Your task to perform on an android device: Search for flights from Chicago to London Image 0: 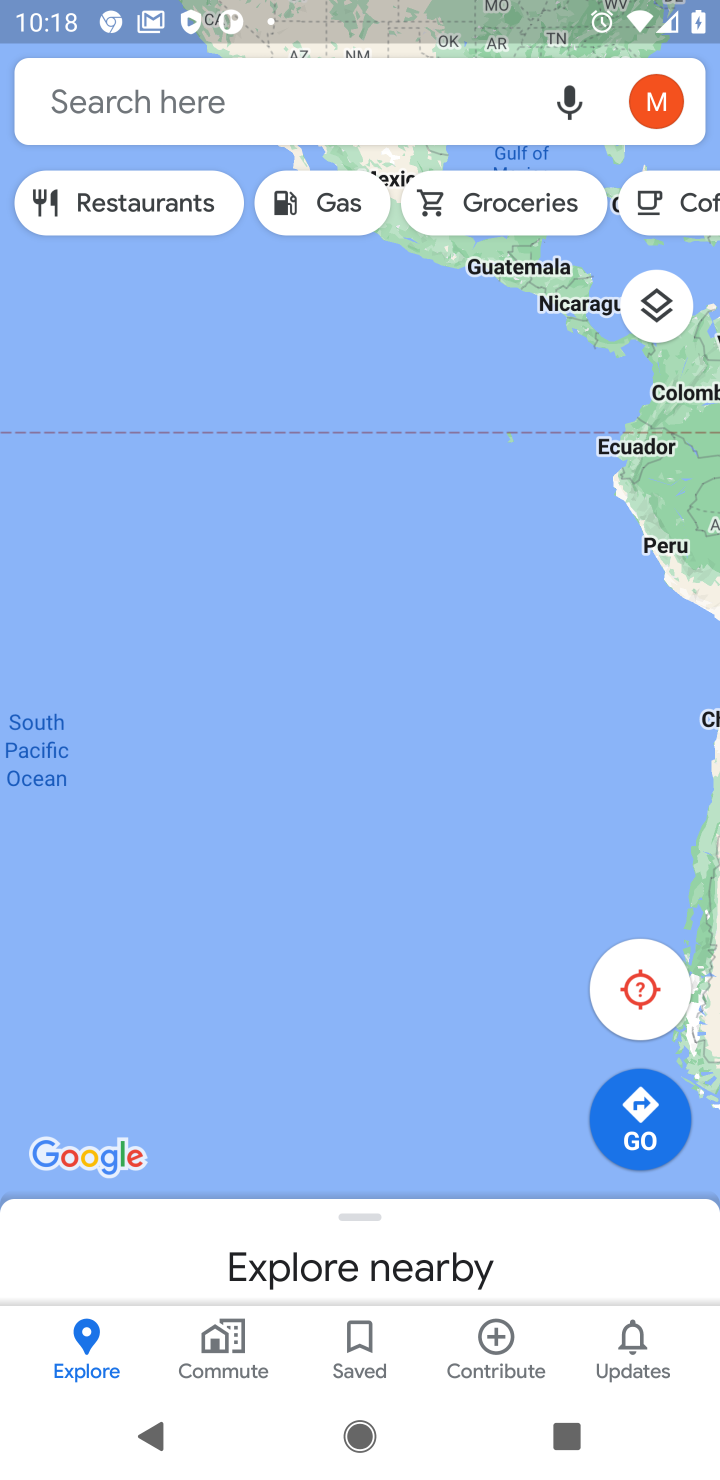
Step 0: press home button
Your task to perform on an android device: Search for flights from Chicago to London Image 1: 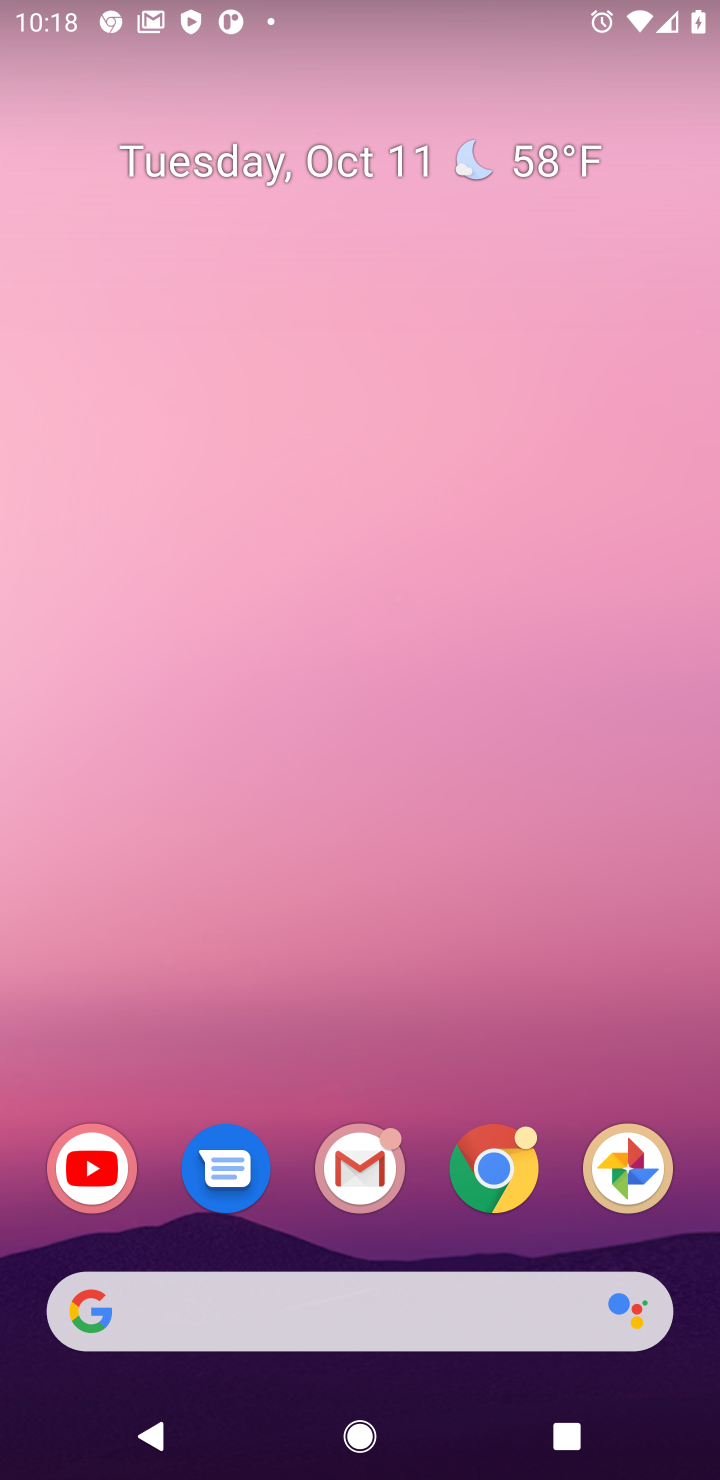
Step 1: click (489, 1154)
Your task to perform on an android device: Search for flights from Chicago to London Image 2: 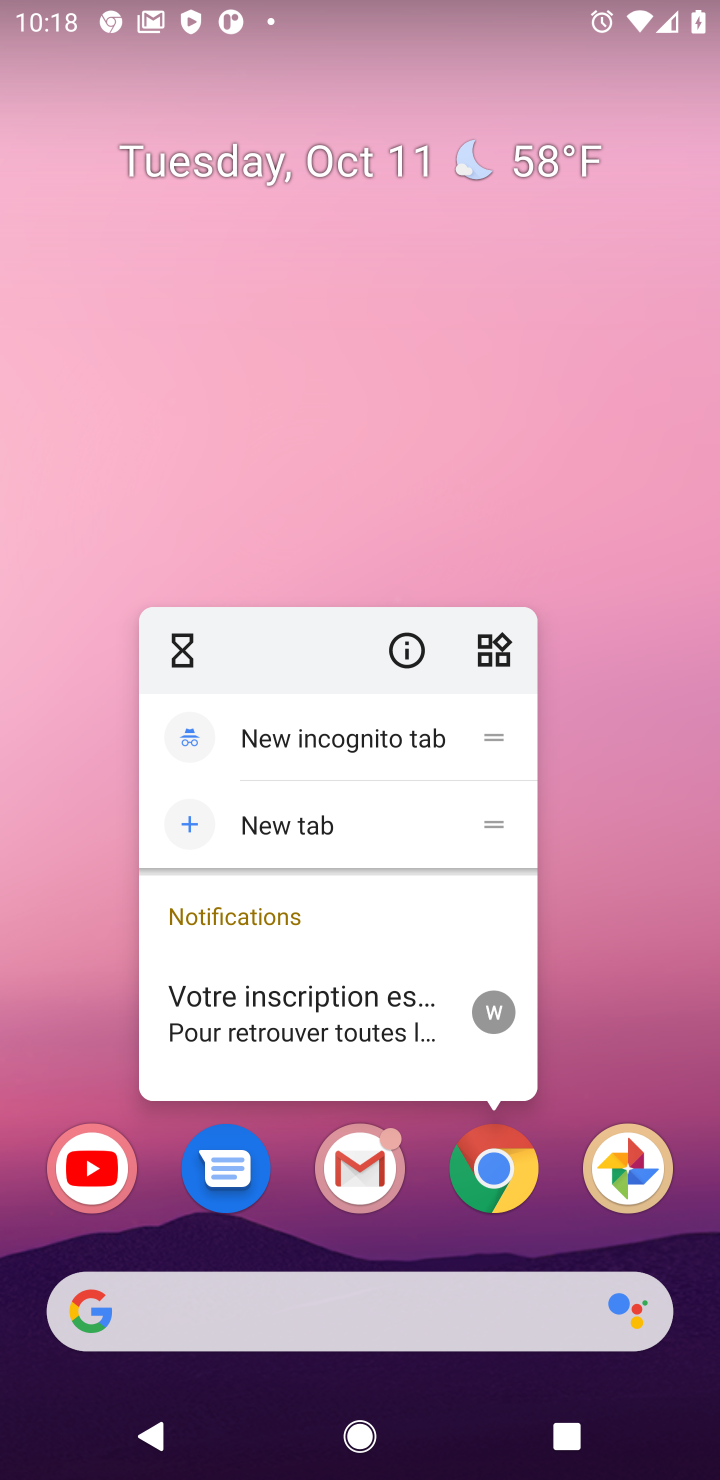
Step 2: press back button
Your task to perform on an android device: Search for flights from Chicago to London Image 3: 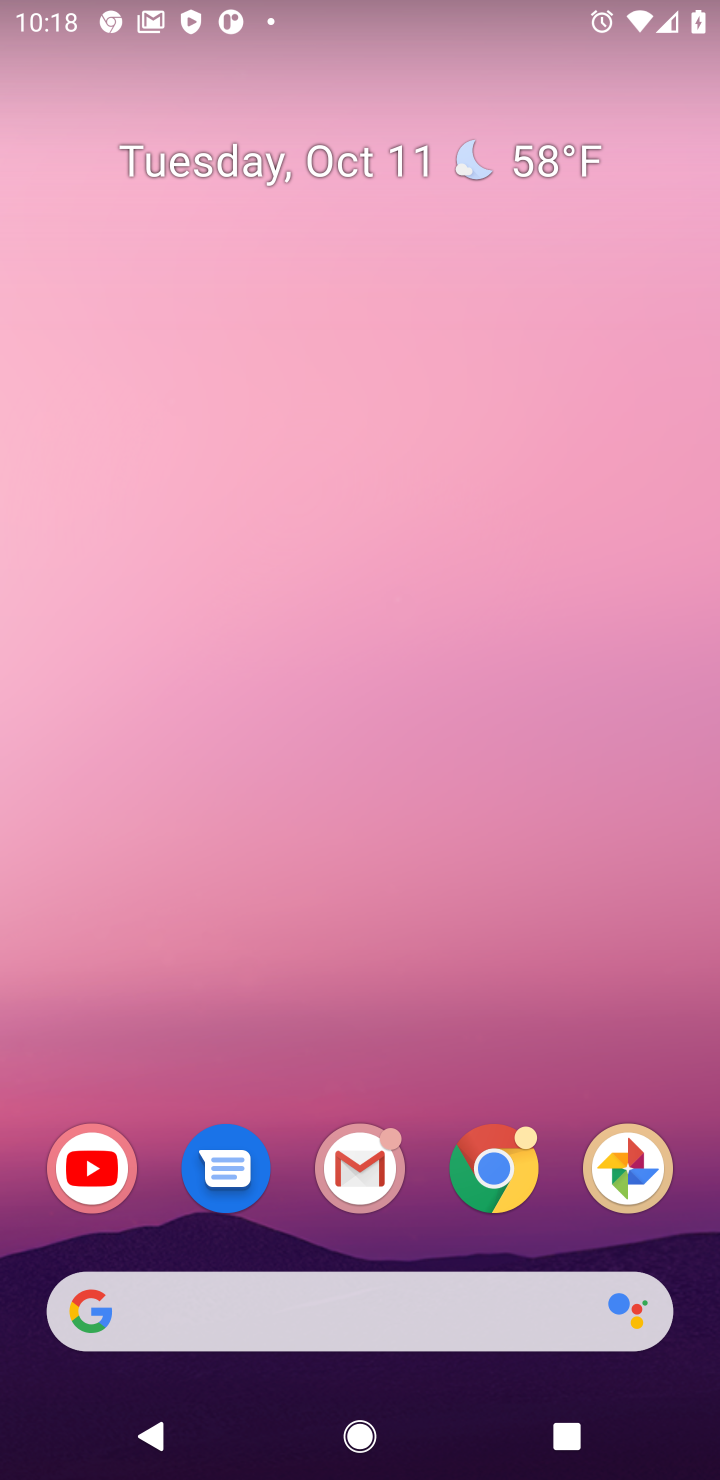
Step 3: press back button
Your task to perform on an android device: Search for flights from Chicago to London Image 4: 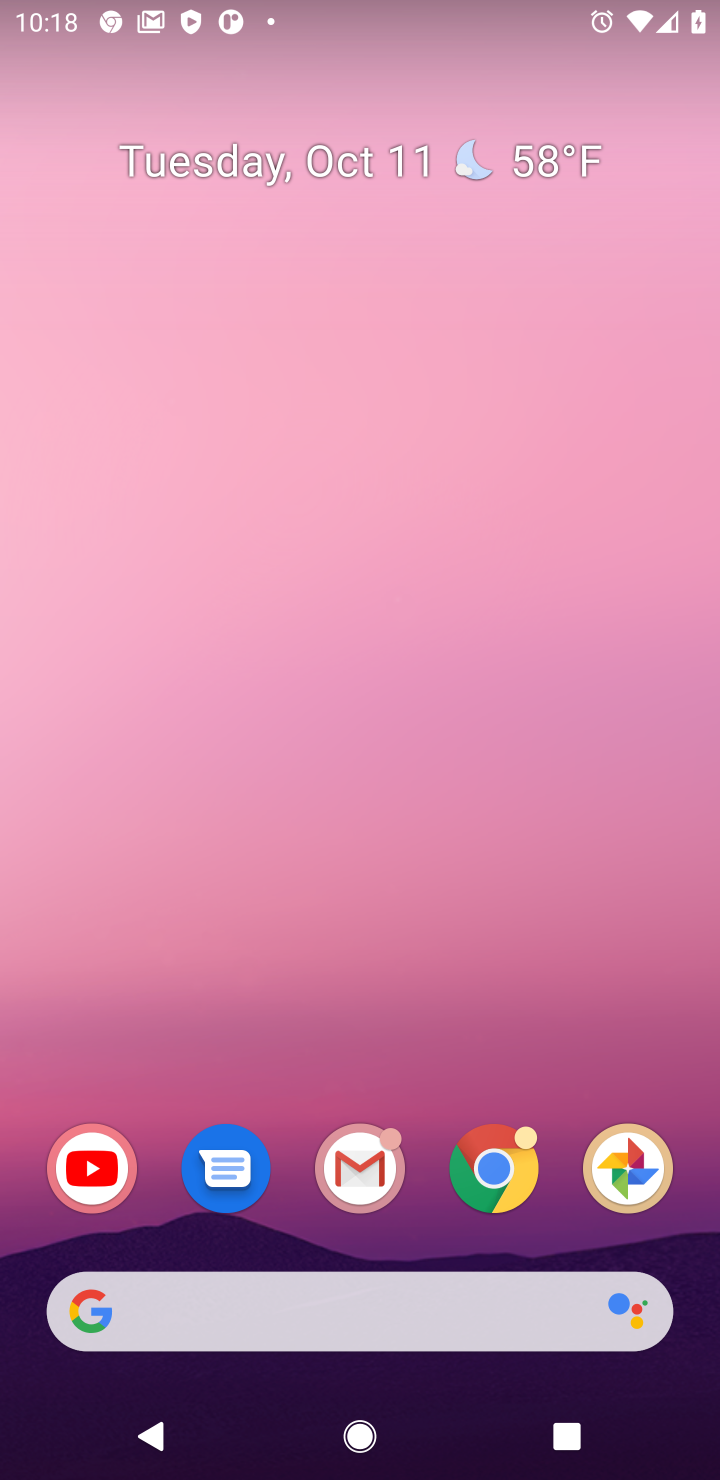
Step 4: press home button
Your task to perform on an android device: Search for flights from Chicago to London Image 5: 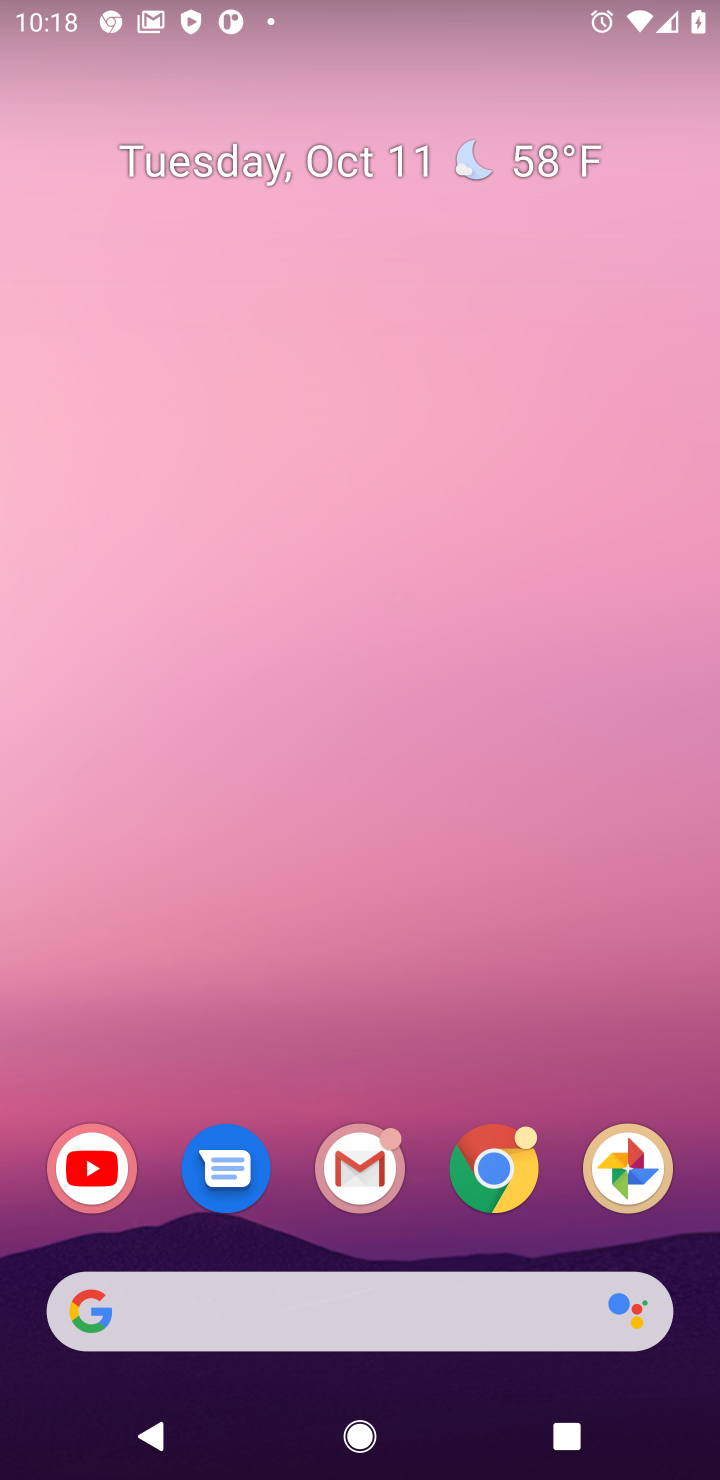
Step 5: click (494, 1170)
Your task to perform on an android device: Search for flights from Chicago to London Image 6: 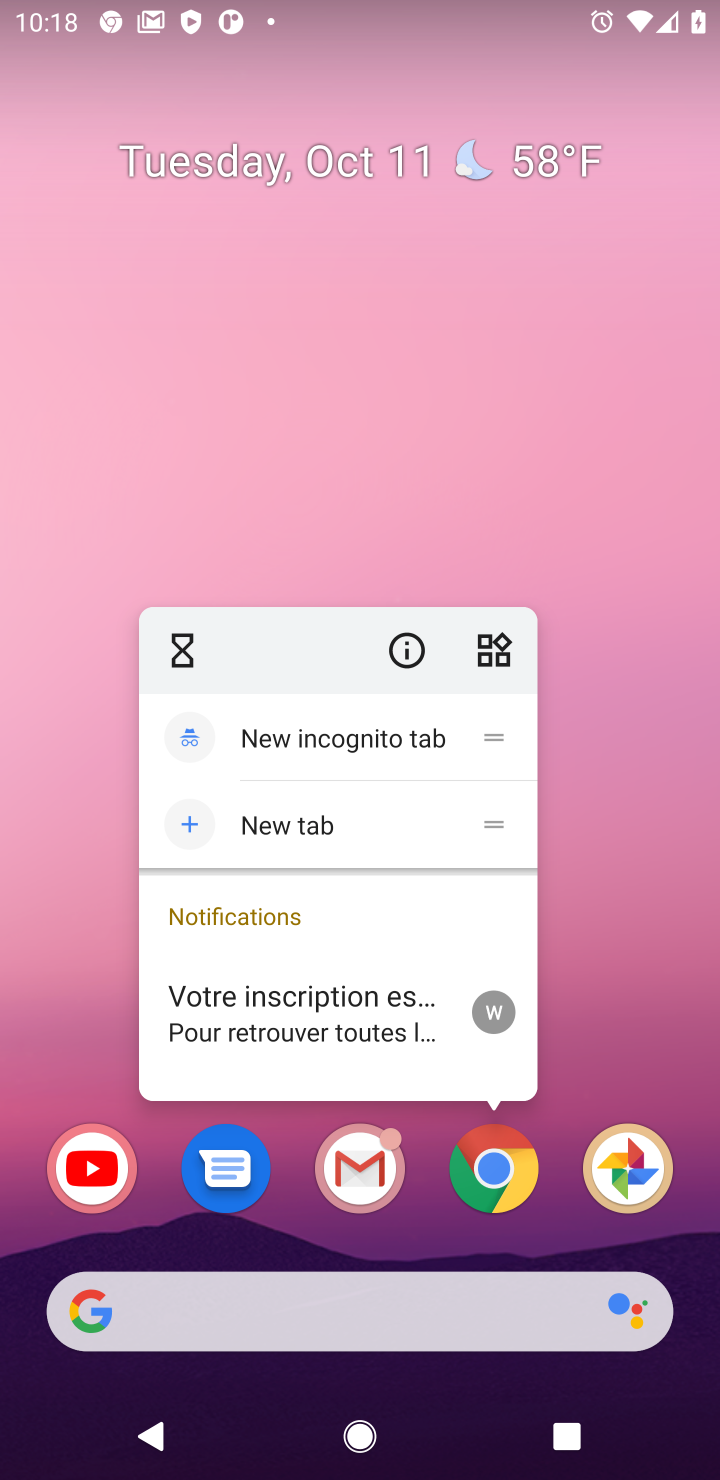
Step 6: click (489, 1161)
Your task to perform on an android device: Search for flights from Chicago to London Image 7: 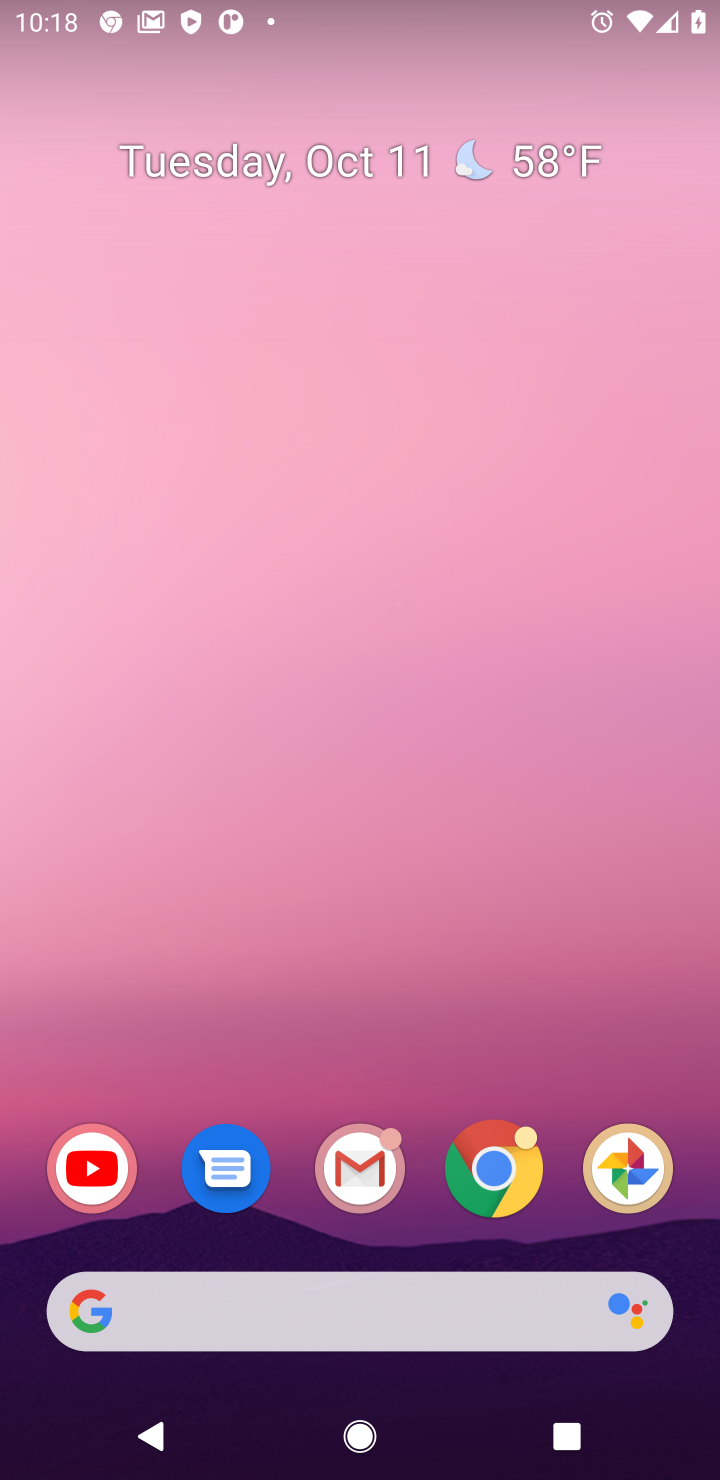
Step 7: click (510, 1179)
Your task to perform on an android device: Search for flights from Chicago to London Image 8: 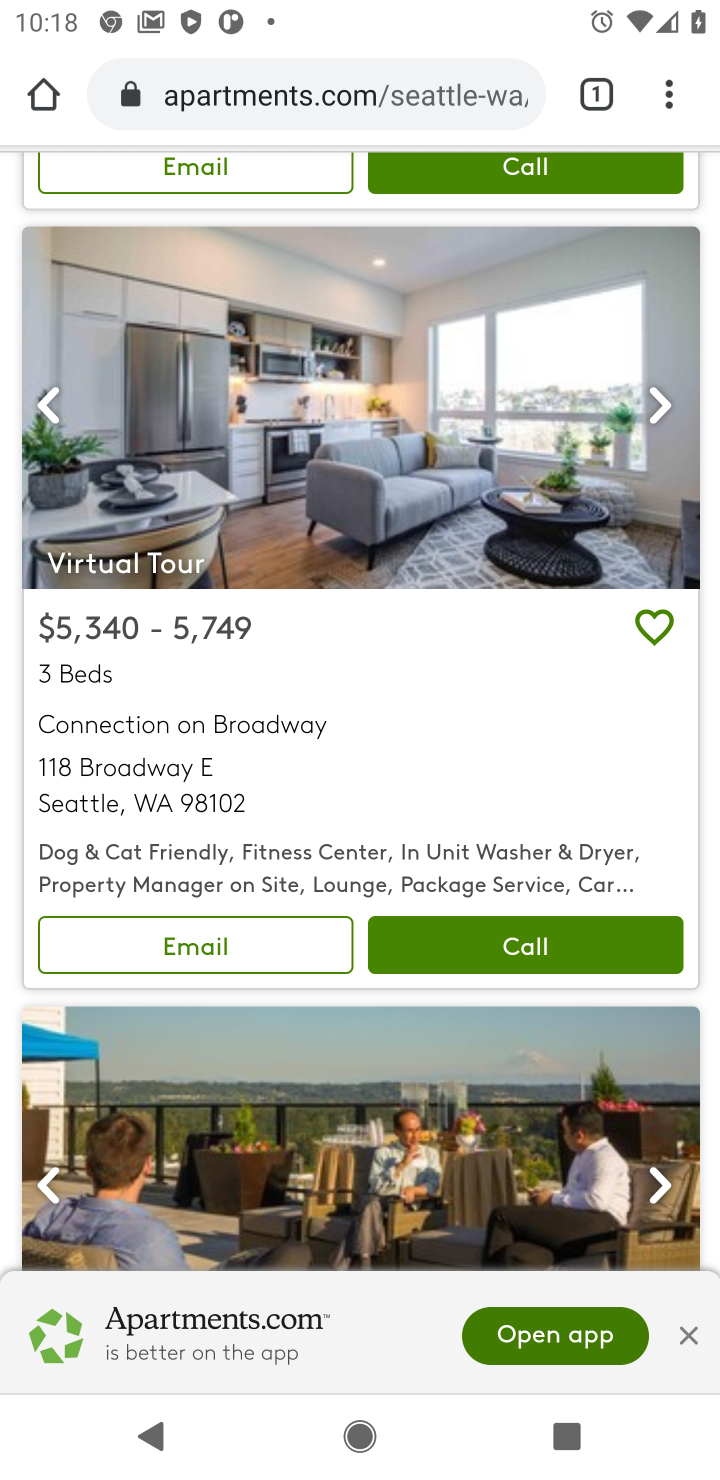
Step 8: click (416, 103)
Your task to perform on an android device: Search for flights from Chicago to London Image 9: 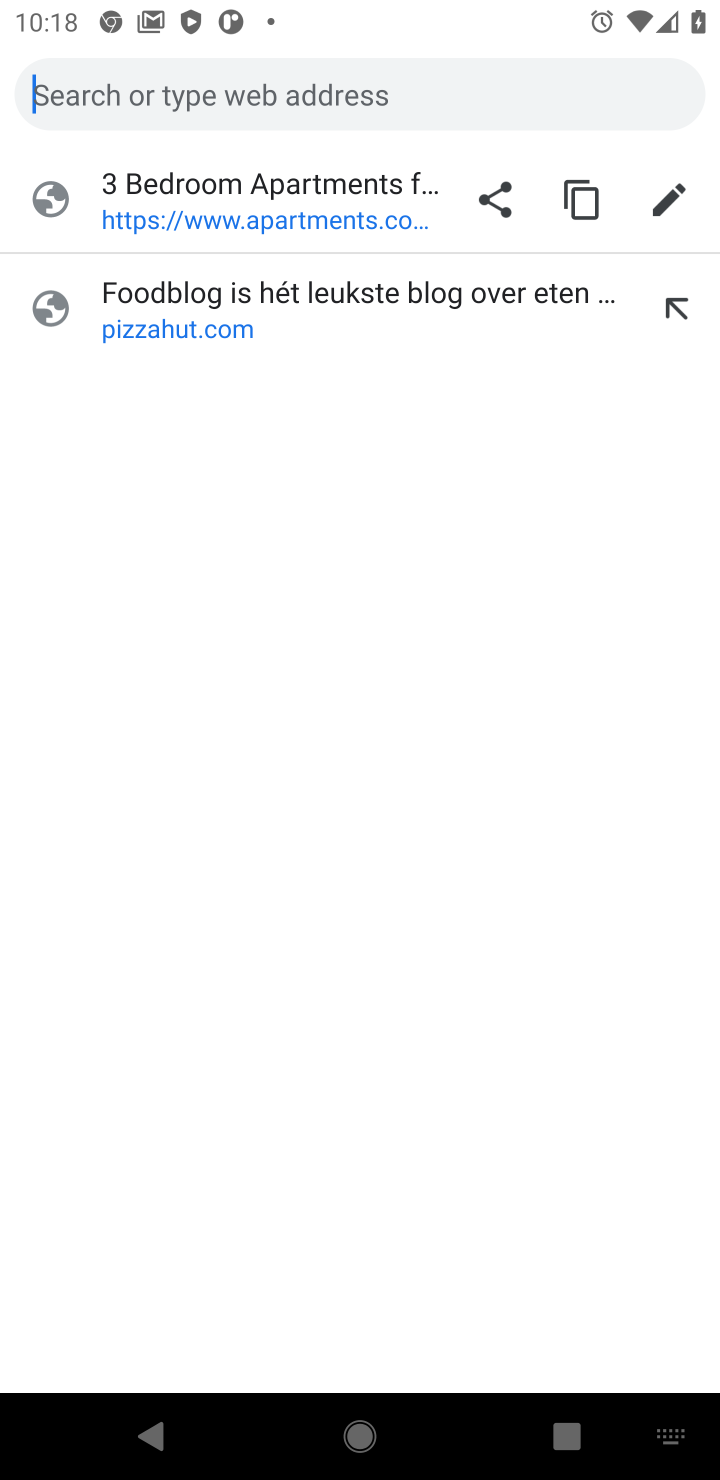
Step 9: type "flight from chicago to london"
Your task to perform on an android device: Search for flights from Chicago to London Image 10: 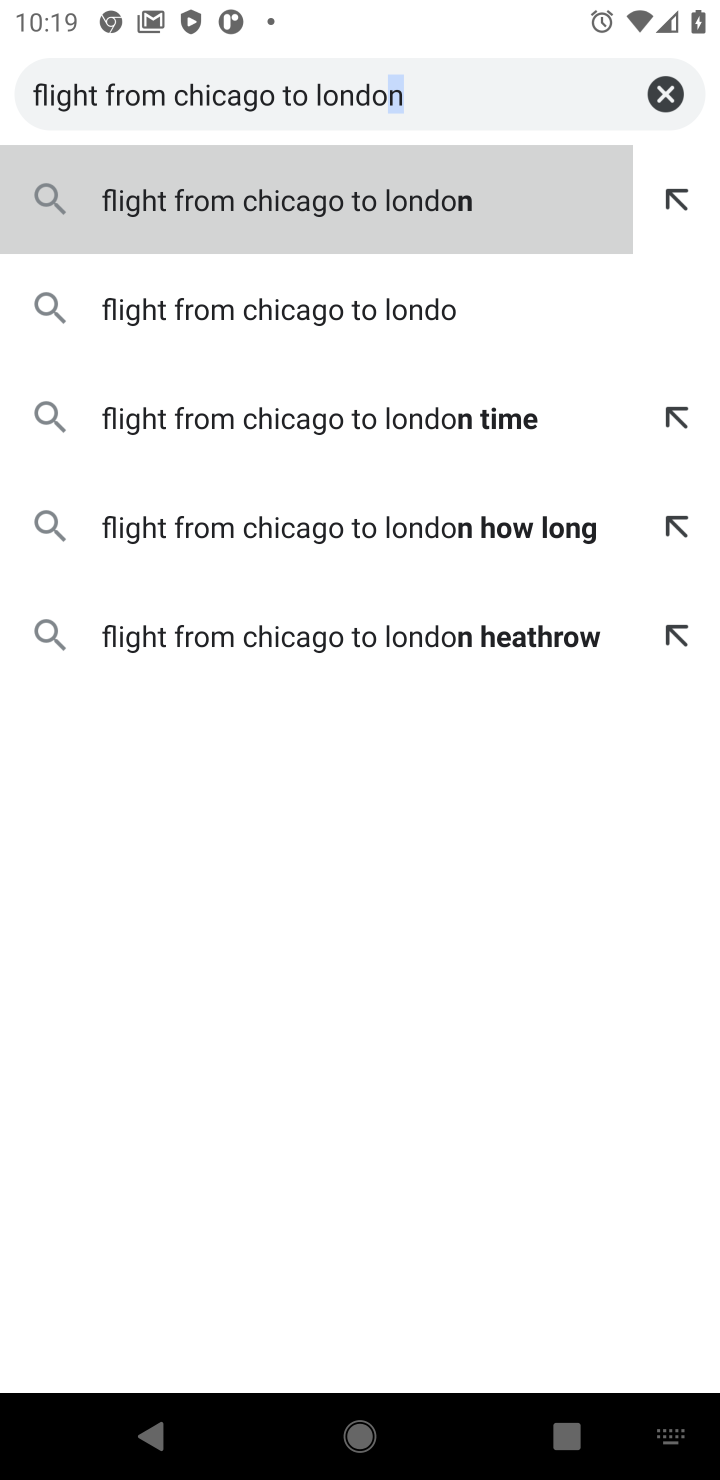
Step 10: click (376, 195)
Your task to perform on an android device: Search for flights from Chicago to London Image 11: 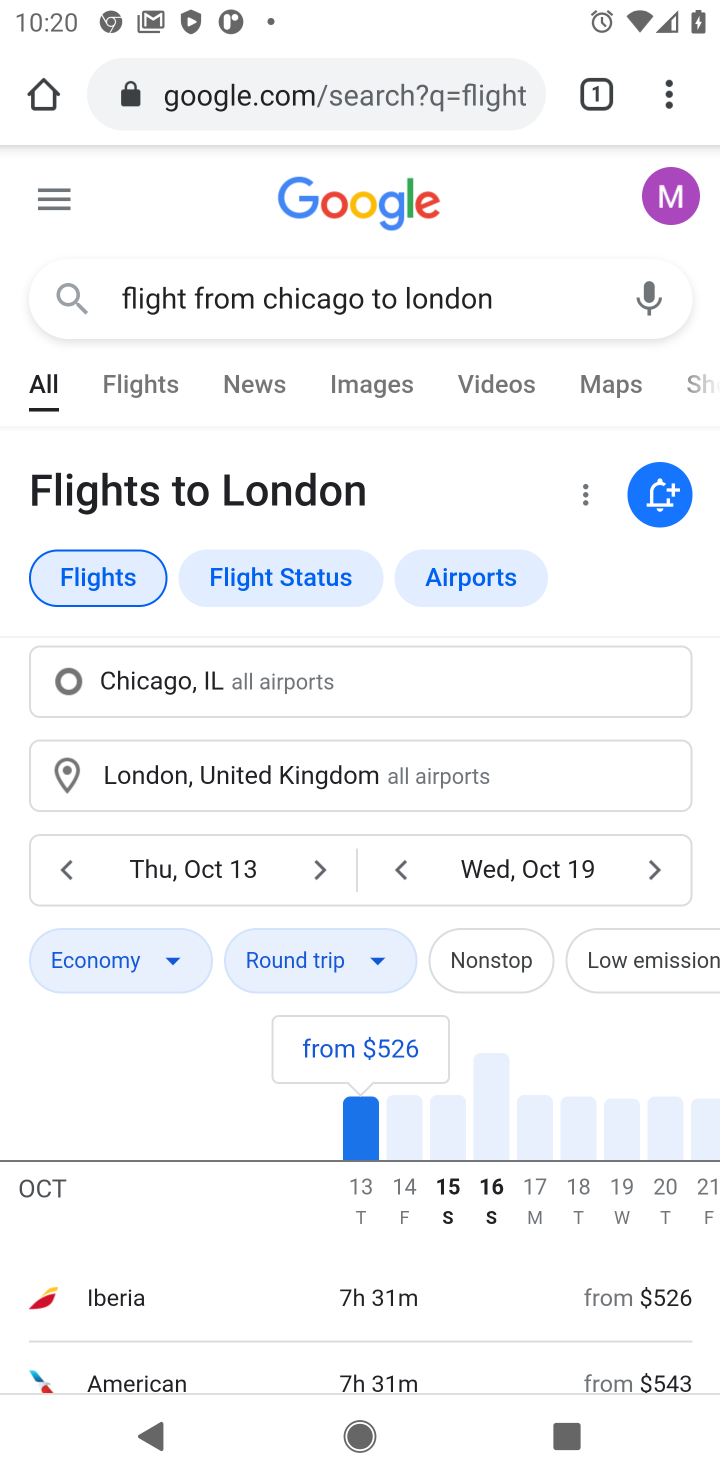
Step 11: drag from (558, 1055) to (629, 438)
Your task to perform on an android device: Search for flights from Chicago to London Image 12: 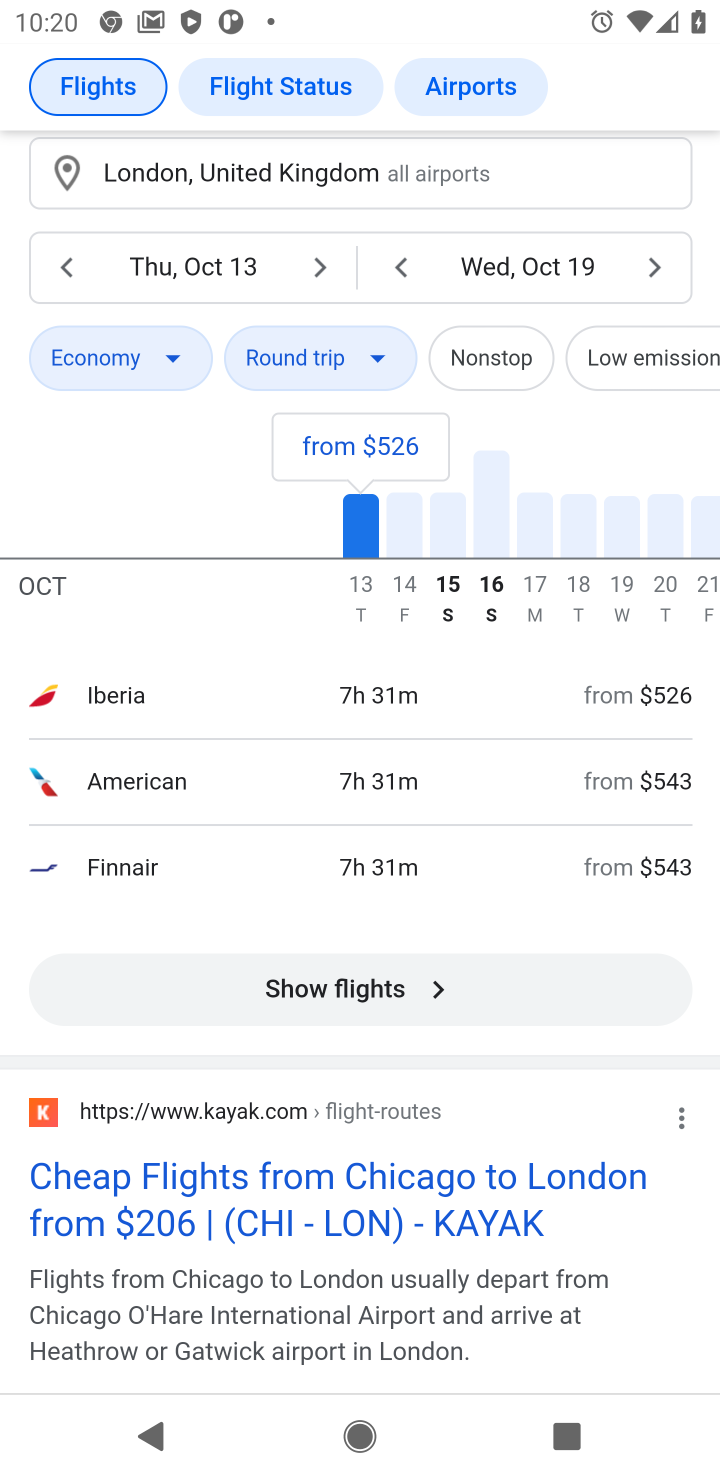
Step 12: drag from (363, 824) to (454, 530)
Your task to perform on an android device: Search for flights from Chicago to London Image 13: 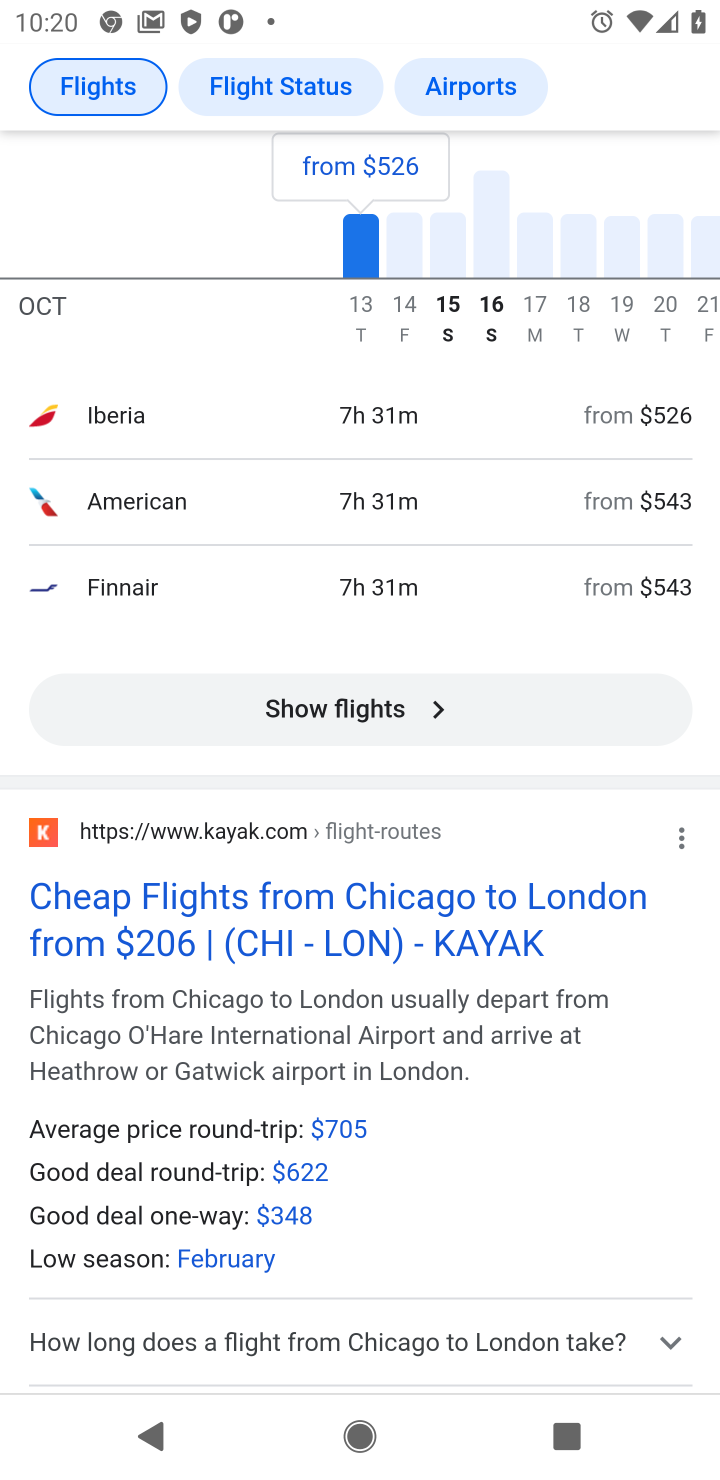
Step 13: click (342, 713)
Your task to perform on an android device: Search for flights from Chicago to London Image 14: 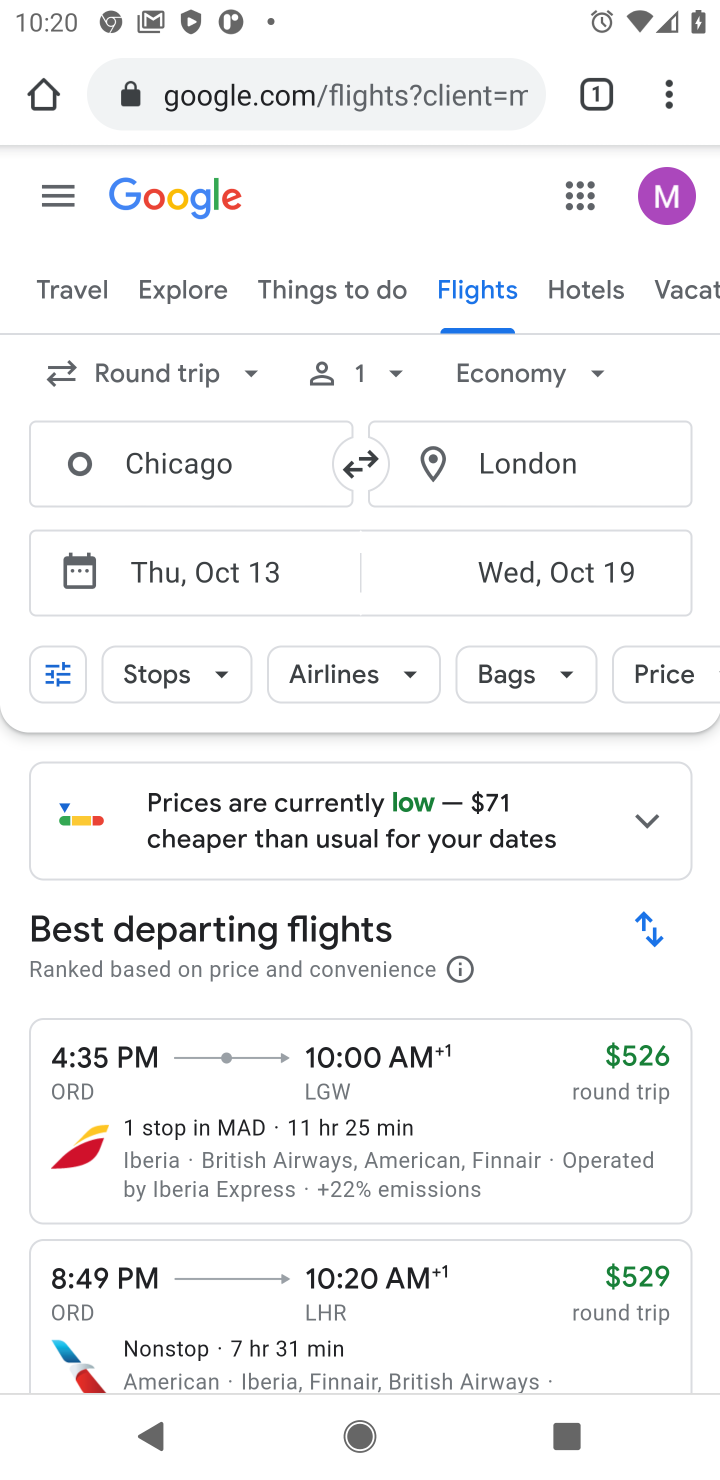
Step 14: task complete